Your task to perform on an android device: make emails show in primary in the gmail app Image 0: 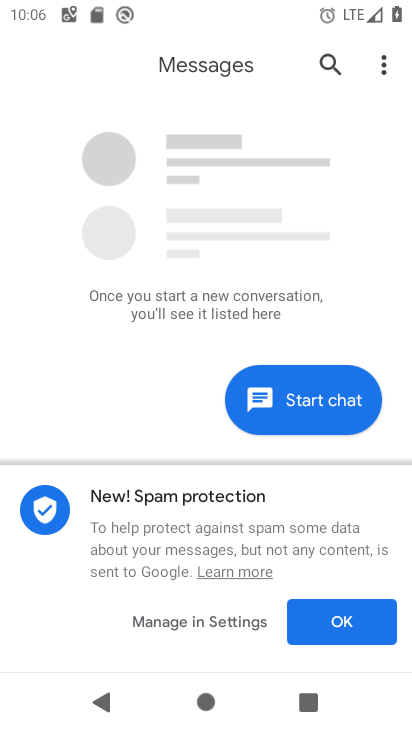
Step 0: press home button
Your task to perform on an android device: make emails show in primary in the gmail app Image 1: 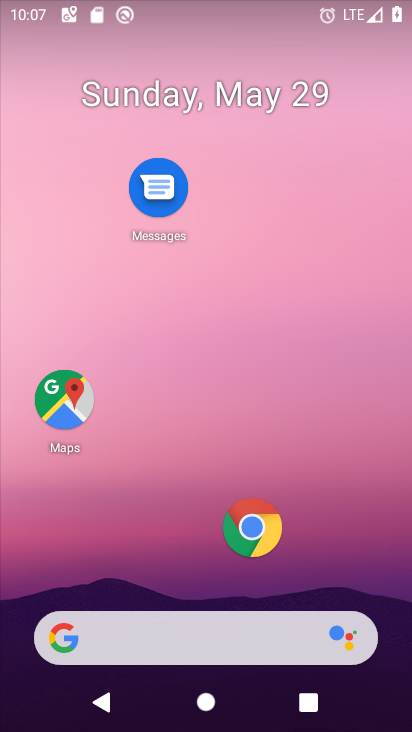
Step 1: drag from (192, 582) to (211, 17)
Your task to perform on an android device: make emails show in primary in the gmail app Image 2: 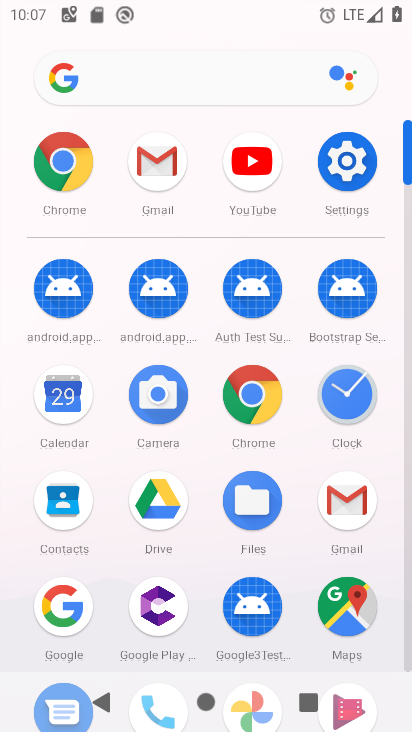
Step 2: click (332, 499)
Your task to perform on an android device: make emails show in primary in the gmail app Image 3: 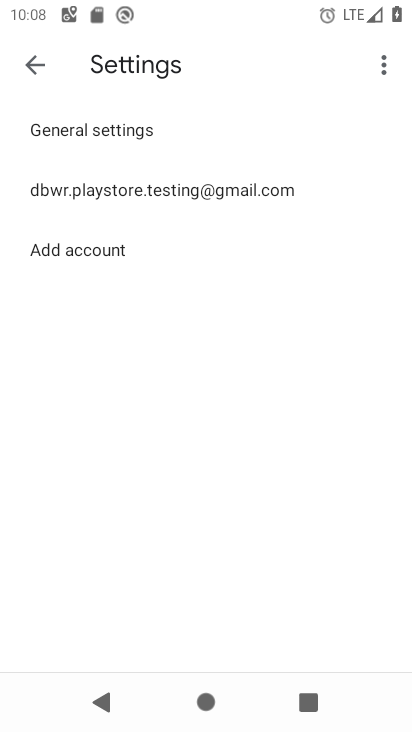
Step 3: click (32, 66)
Your task to perform on an android device: make emails show in primary in the gmail app Image 4: 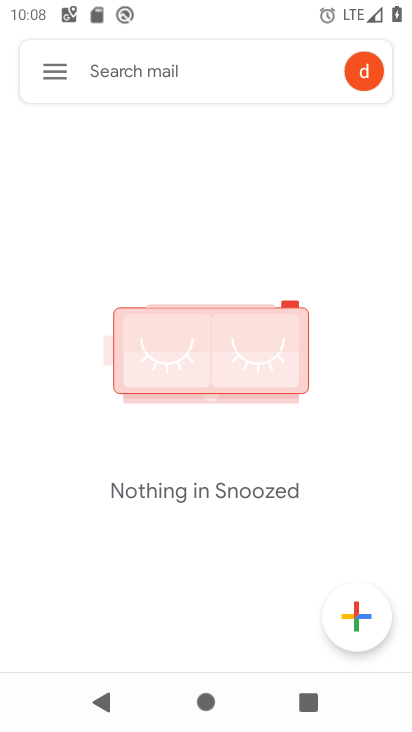
Step 4: click (53, 71)
Your task to perform on an android device: make emails show in primary in the gmail app Image 5: 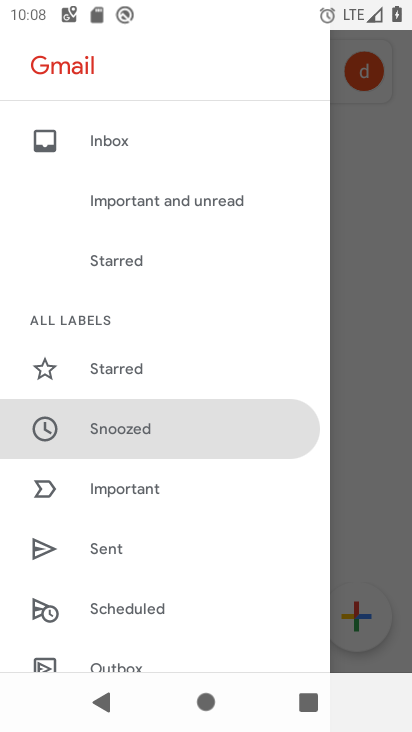
Step 5: drag from (161, 610) to (187, 17)
Your task to perform on an android device: make emails show in primary in the gmail app Image 6: 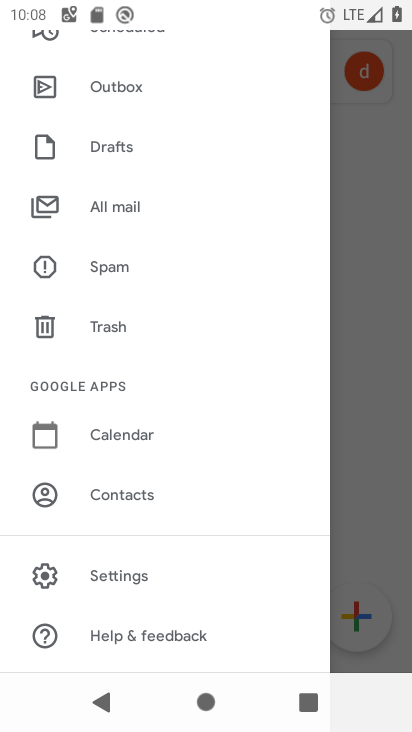
Step 6: click (139, 571)
Your task to perform on an android device: make emails show in primary in the gmail app Image 7: 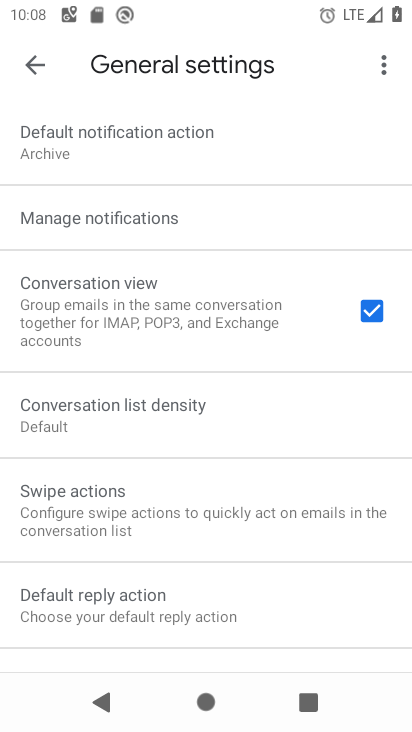
Step 7: click (38, 71)
Your task to perform on an android device: make emails show in primary in the gmail app Image 8: 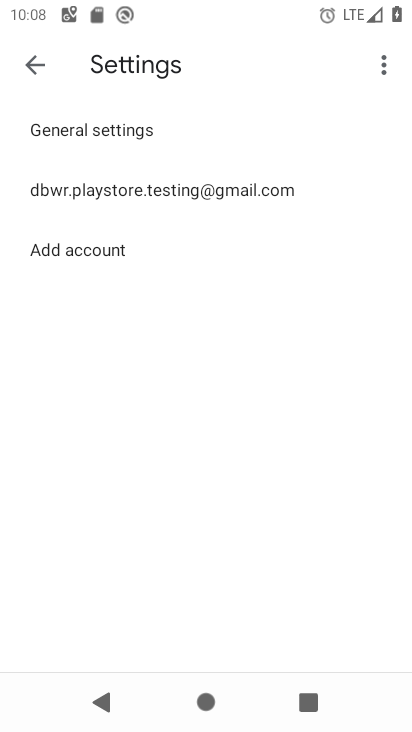
Step 8: click (131, 187)
Your task to perform on an android device: make emails show in primary in the gmail app Image 9: 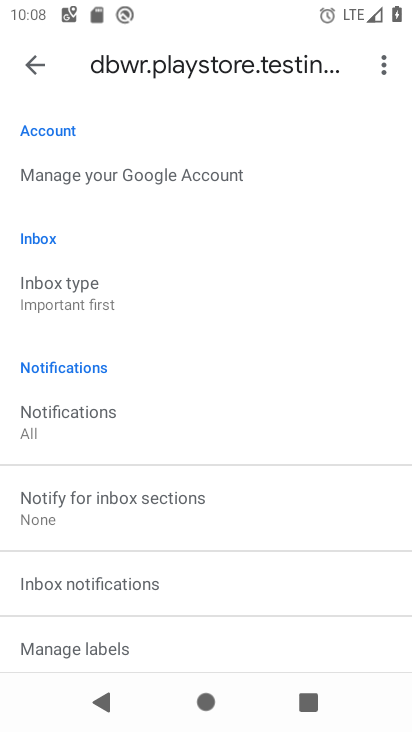
Step 9: click (114, 296)
Your task to perform on an android device: make emails show in primary in the gmail app Image 10: 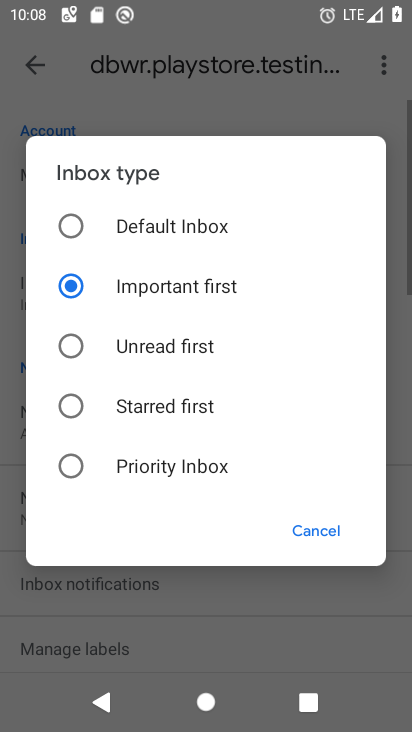
Step 10: click (62, 230)
Your task to perform on an android device: make emails show in primary in the gmail app Image 11: 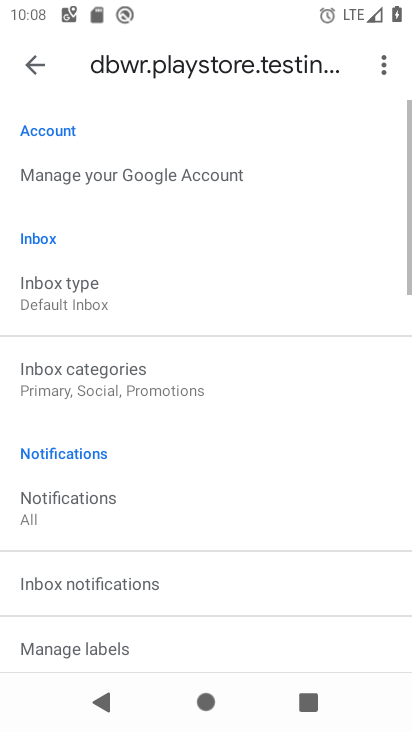
Step 11: task complete